Your task to perform on an android device: turn on sleep mode Image 0: 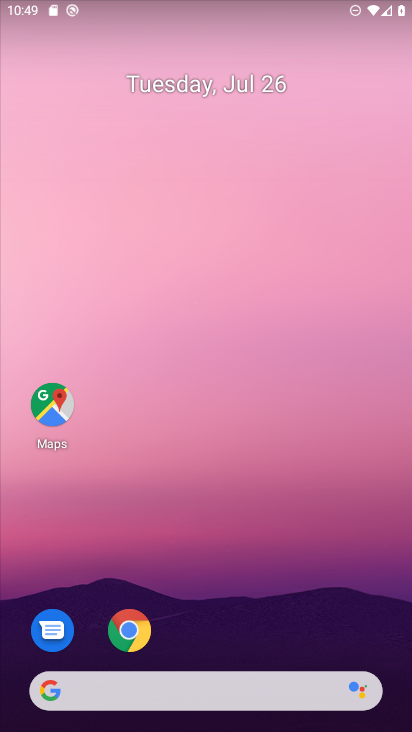
Step 0: drag from (380, 638) to (320, 92)
Your task to perform on an android device: turn on sleep mode Image 1: 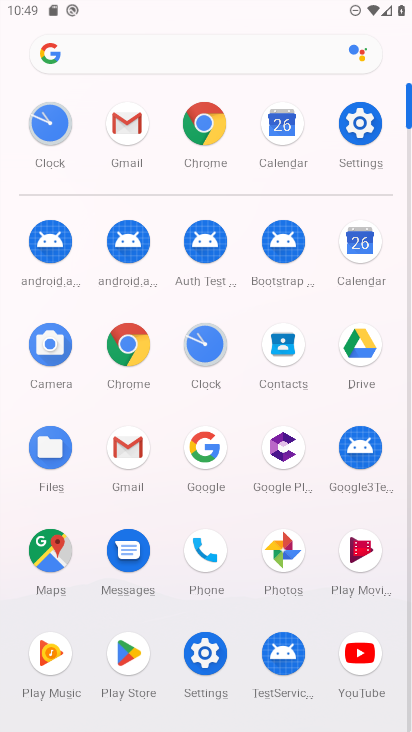
Step 1: click (205, 653)
Your task to perform on an android device: turn on sleep mode Image 2: 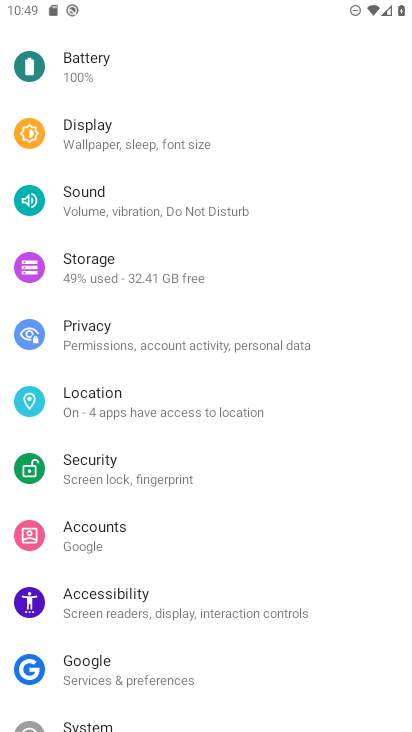
Step 2: click (83, 125)
Your task to perform on an android device: turn on sleep mode Image 3: 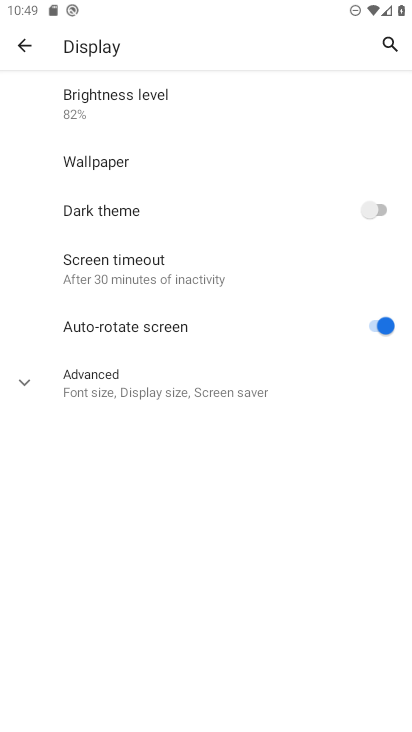
Step 3: click (29, 376)
Your task to perform on an android device: turn on sleep mode Image 4: 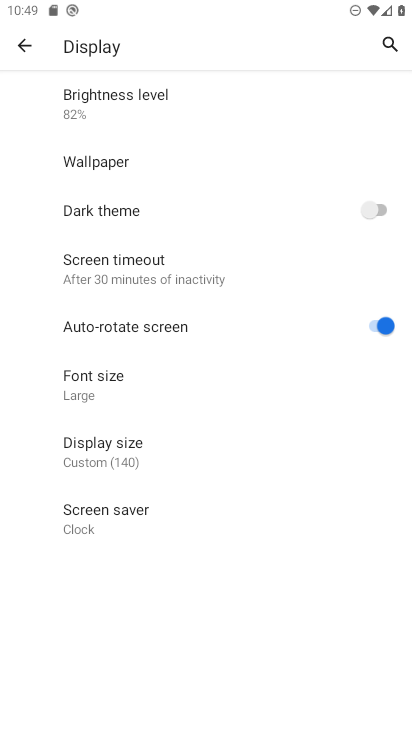
Step 4: task complete